Your task to perform on an android device: Search for the Nintendo Switch. Image 0: 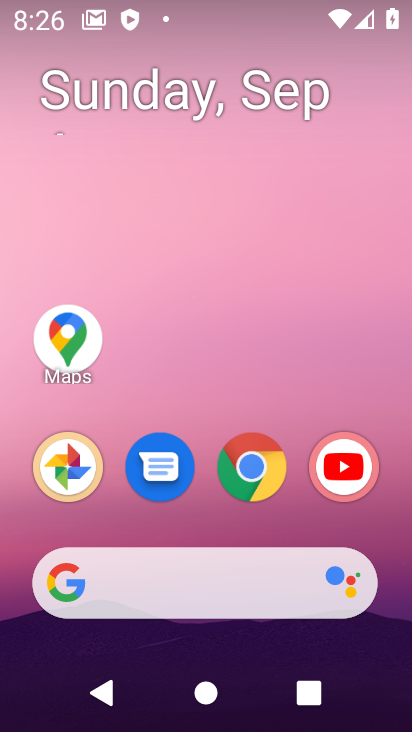
Step 0: click (262, 458)
Your task to perform on an android device: Search for the Nintendo Switch. Image 1: 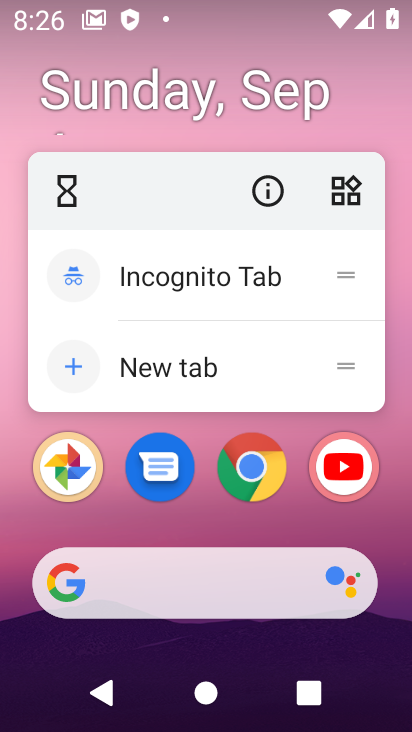
Step 1: click (274, 468)
Your task to perform on an android device: Search for the Nintendo Switch. Image 2: 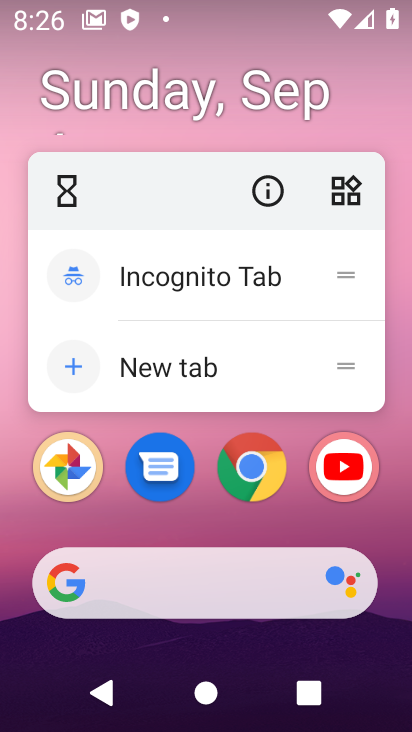
Step 2: click (256, 489)
Your task to perform on an android device: Search for the Nintendo Switch. Image 3: 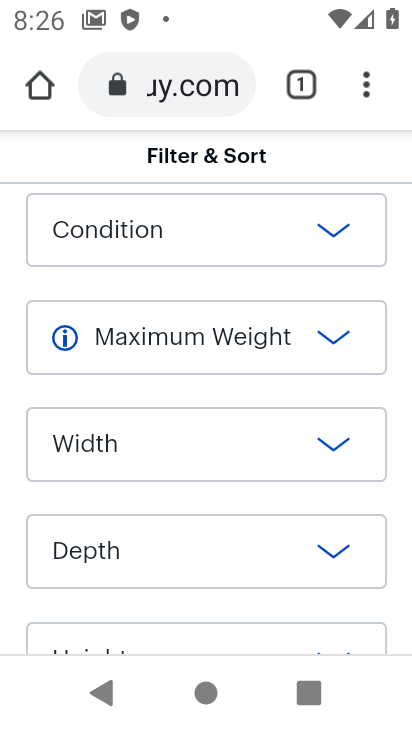
Step 3: click (214, 91)
Your task to perform on an android device: Search for the Nintendo Switch. Image 4: 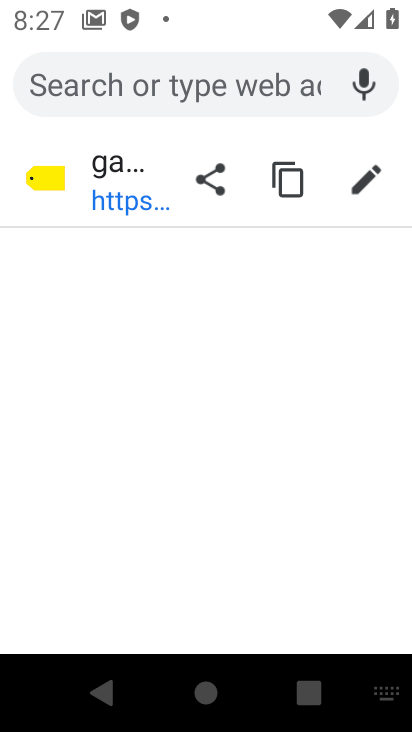
Step 4: type "nintendo switch"
Your task to perform on an android device: Search for the Nintendo Switch. Image 5: 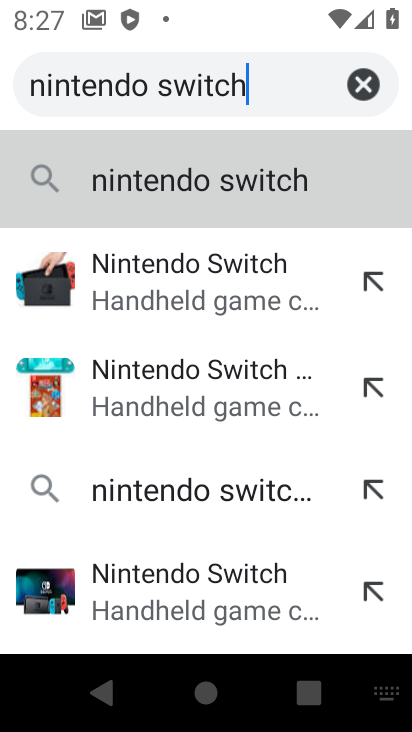
Step 5: type ""
Your task to perform on an android device: Search for the Nintendo Switch. Image 6: 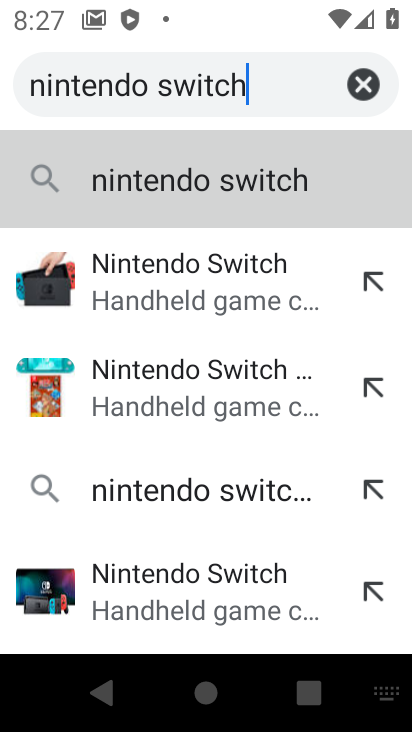
Step 6: click (140, 285)
Your task to perform on an android device: Search for the Nintendo Switch. Image 7: 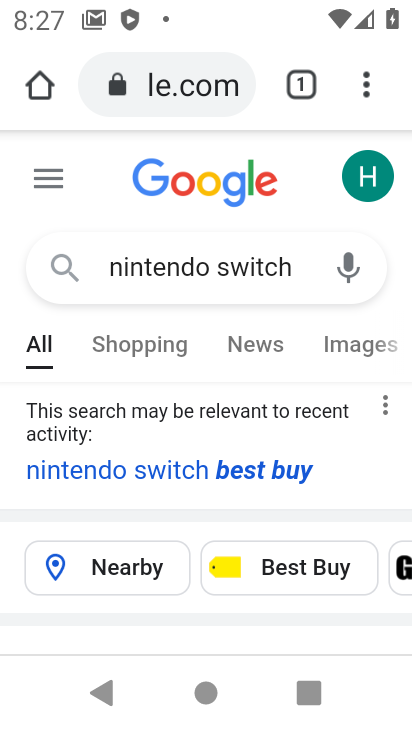
Step 7: drag from (404, 481) to (378, 266)
Your task to perform on an android device: Search for the Nintendo Switch. Image 8: 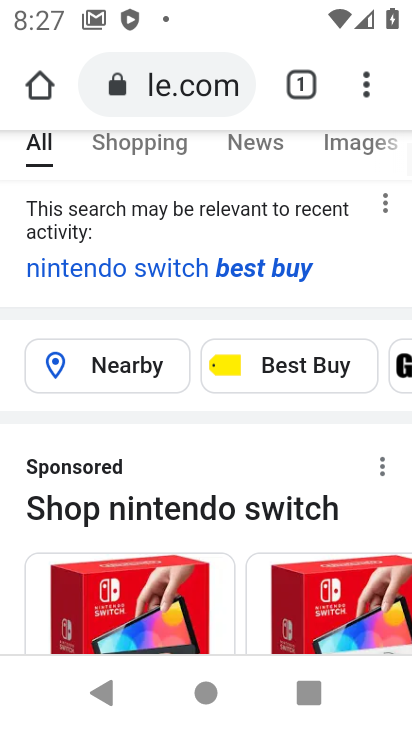
Step 8: drag from (389, 503) to (406, 100)
Your task to perform on an android device: Search for the Nintendo Switch. Image 9: 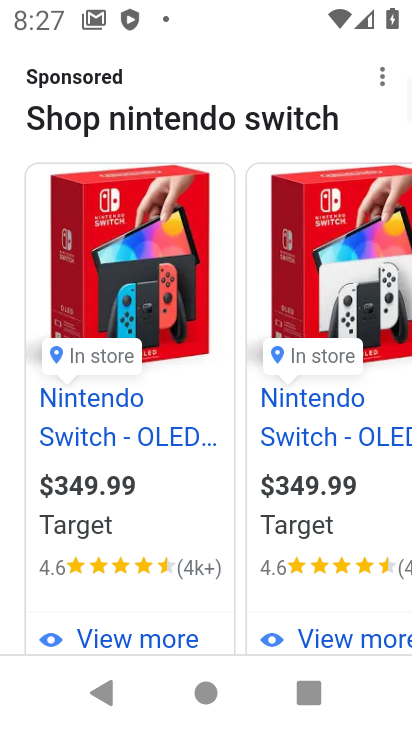
Step 9: drag from (387, 594) to (395, 136)
Your task to perform on an android device: Search for the Nintendo Switch. Image 10: 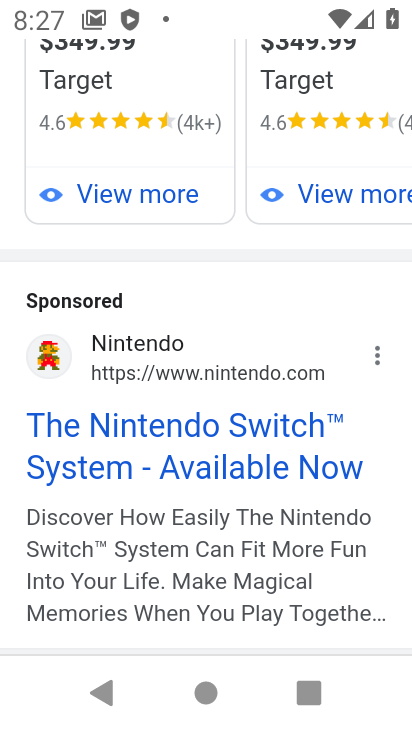
Step 10: drag from (393, 513) to (402, 263)
Your task to perform on an android device: Search for the Nintendo Switch. Image 11: 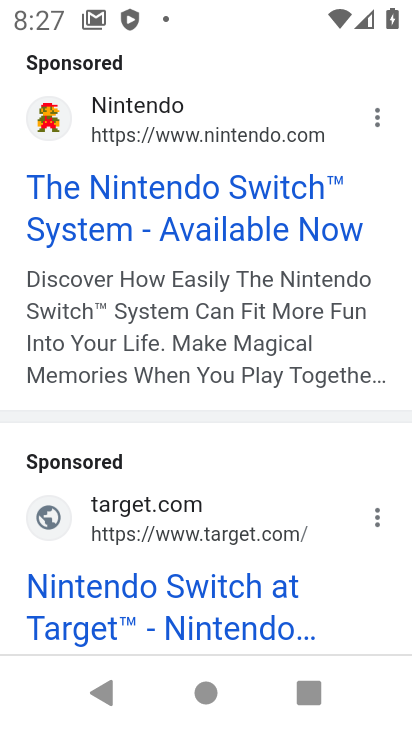
Step 11: click (134, 184)
Your task to perform on an android device: Search for the Nintendo Switch. Image 12: 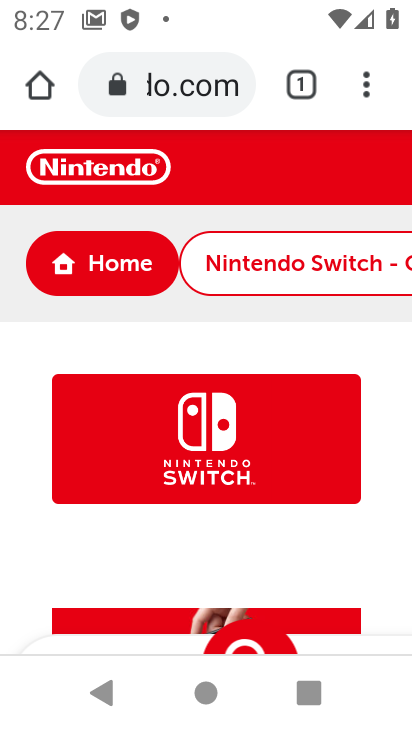
Step 12: drag from (401, 546) to (401, 323)
Your task to perform on an android device: Search for the Nintendo Switch. Image 13: 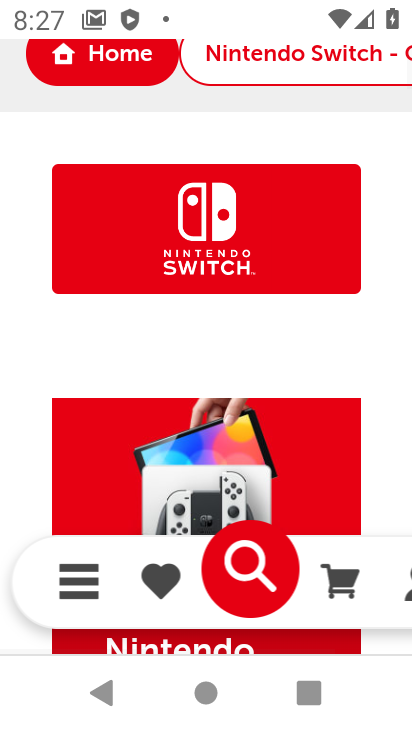
Step 13: drag from (358, 488) to (368, 176)
Your task to perform on an android device: Search for the Nintendo Switch. Image 14: 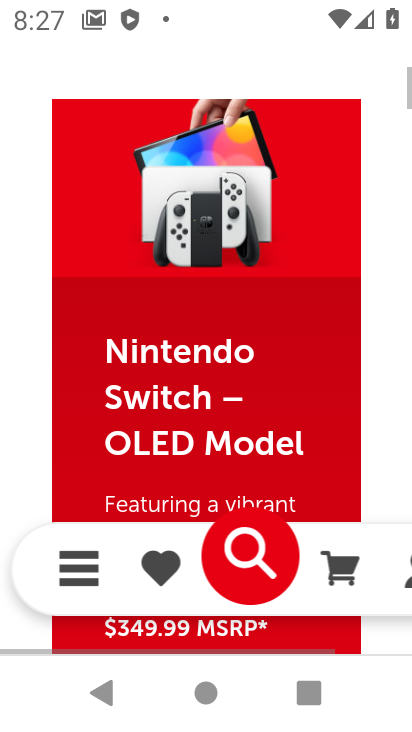
Step 14: drag from (369, 258) to (370, 83)
Your task to perform on an android device: Search for the Nintendo Switch. Image 15: 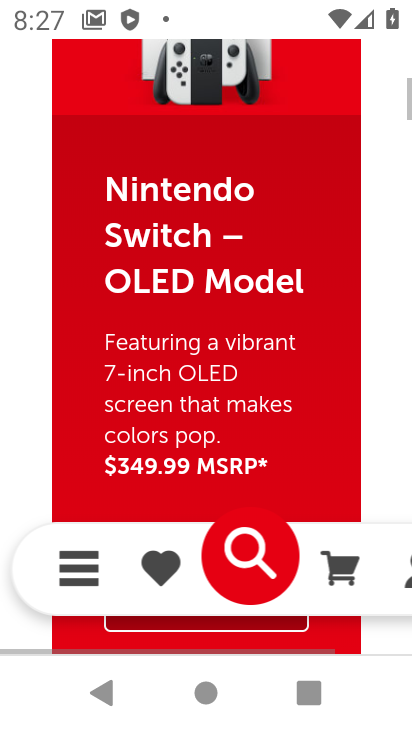
Step 15: drag from (383, 369) to (390, 0)
Your task to perform on an android device: Search for the Nintendo Switch. Image 16: 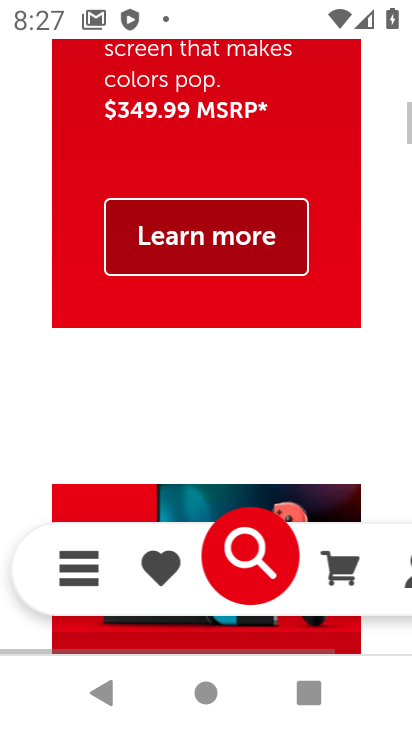
Step 16: drag from (393, 440) to (411, 193)
Your task to perform on an android device: Search for the Nintendo Switch. Image 17: 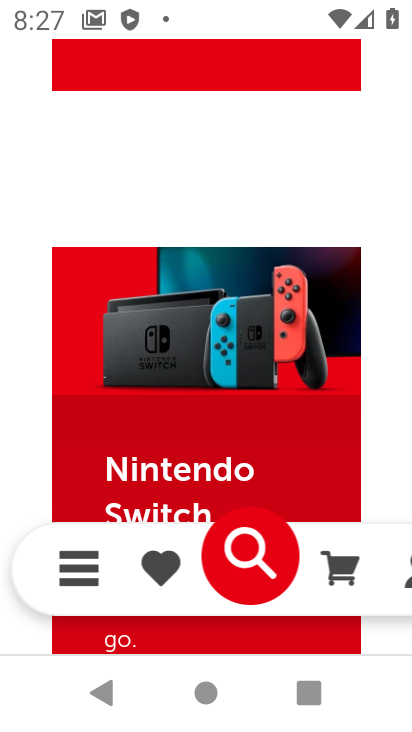
Step 17: drag from (390, 407) to (390, 165)
Your task to perform on an android device: Search for the Nintendo Switch. Image 18: 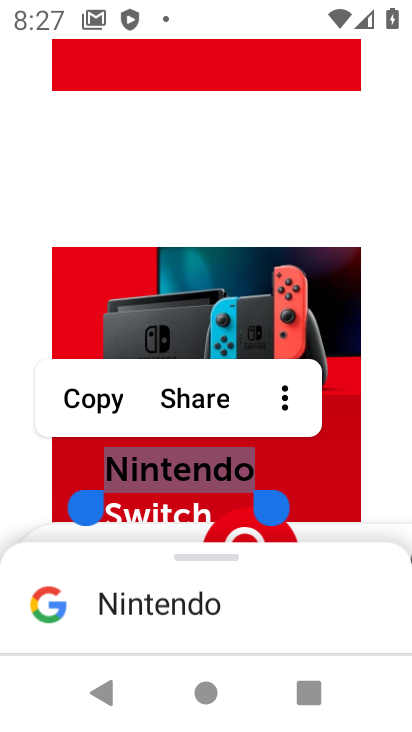
Step 18: drag from (368, 441) to (372, 190)
Your task to perform on an android device: Search for the Nintendo Switch. Image 19: 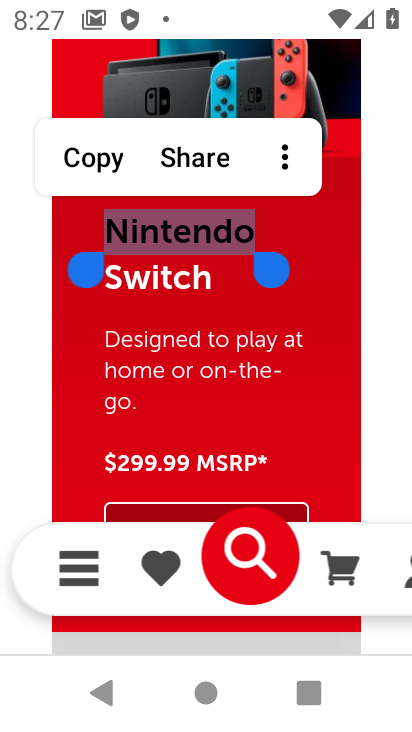
Step 19: drag from (383, 427) to (410, 156)
Your task to perform on an android device: Search for the Nintendo Switch. Image 20: 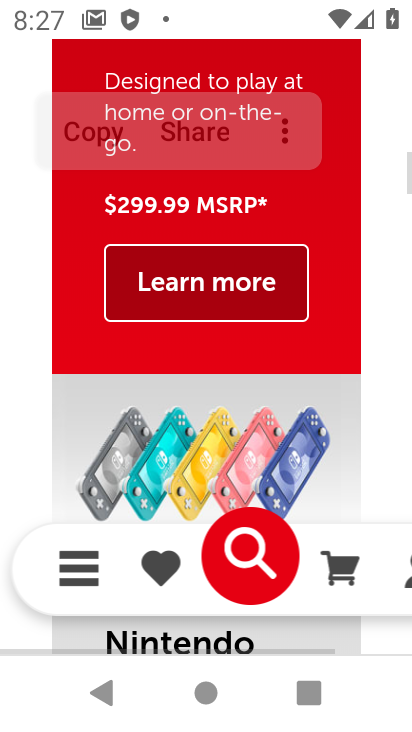
Step 20: drag from (365, 429) to (388, 148)
Your task to perform on an android device: Search for the Nintendo Switch. Image 21: 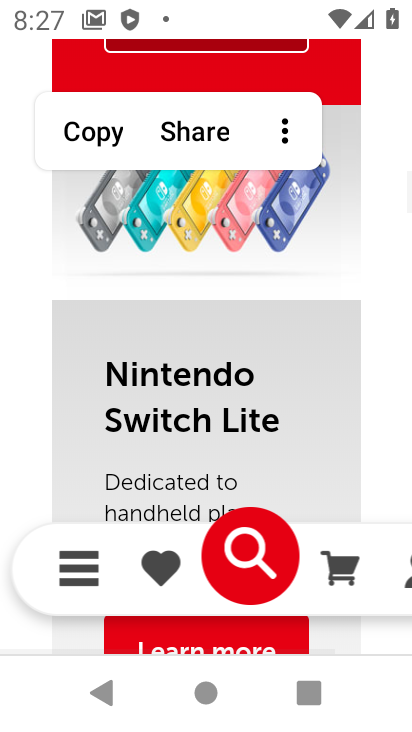
Step 21: drag from (385, 252) to (387, 163)
Your task to perform on an android device: Search for the Nintendo Switch. Image 22: 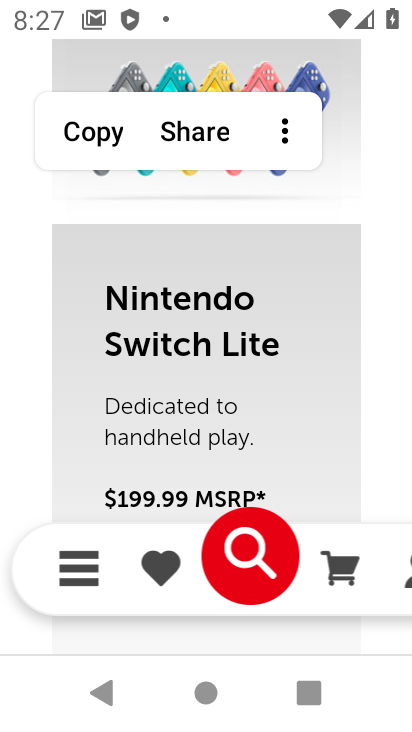
Step 22: drag from (394, 418) to (403, 163)
Your task to perform on an android device: Search for the Nintendo Switch. Image 23: 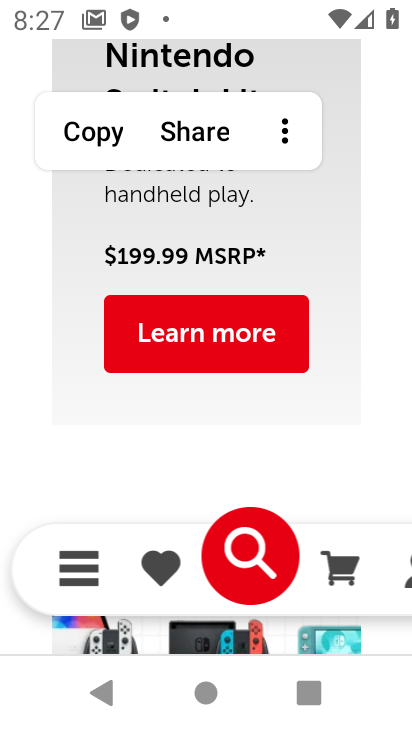
Step 23: drag from (389, 125) to (389, 28)
Your task to perform on an android device: Search for the Nintendo Switch. Image 24: 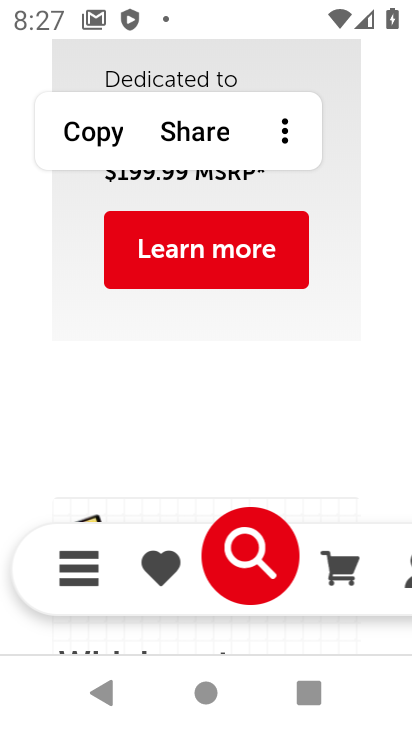
Step 24: drag from (409, 360) to (409, 41)
Your task to perform on an android device: Search for the Nintendo Switch. Image 25: 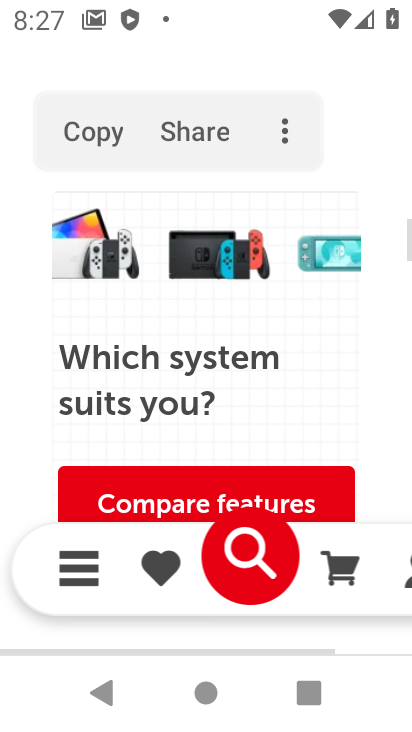
Step 25: drag from (411, 368) to (402, 218)
Your task to perform on an android device: Search for the Nintendo Switch. Image 26: 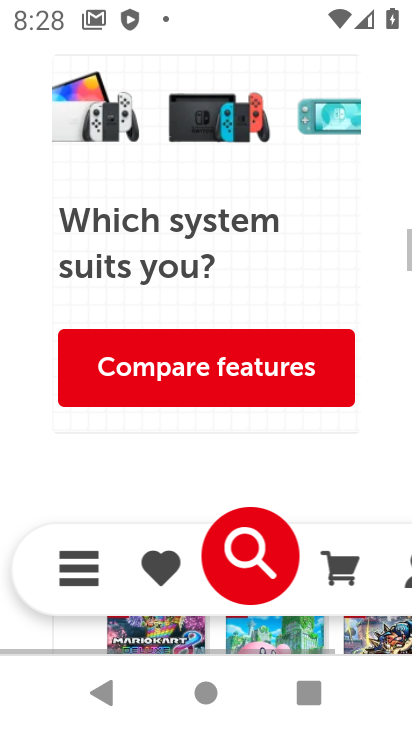
Step 26: drag from (391, 250) to (391, 104)
Your task to perform on an android device: Search for the Nintendo Switch. Image 27: 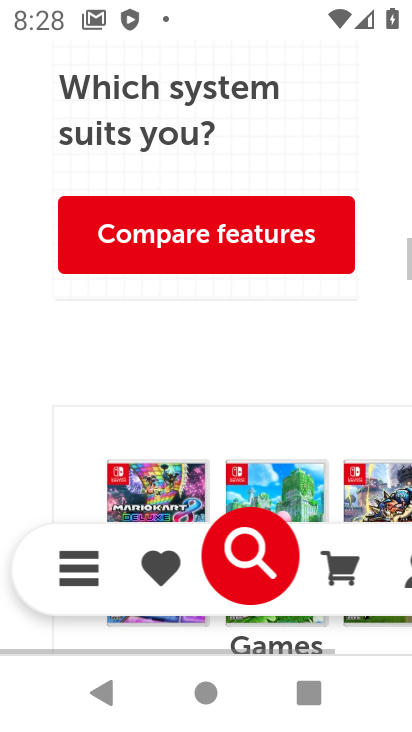
Step 27: drag from (380, 250) to (380, 44)
Your task to perform on an android device: Search for the Nintendo Switch. Image 28: 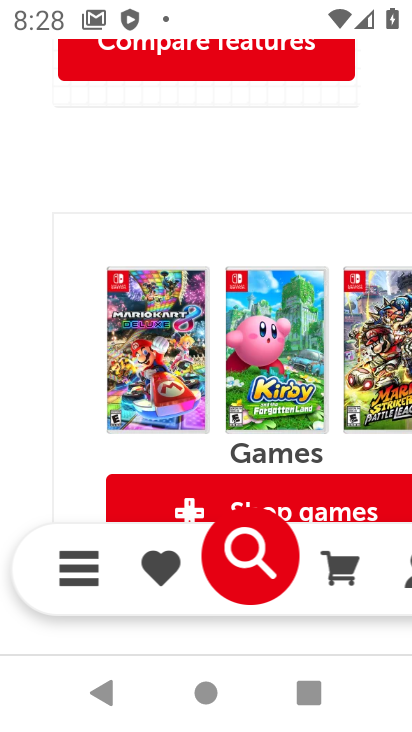
Step 28: drag from (378, 202) to (378, 34)
Your task to perform on an android device: Search for the Nintendo Switch. Image 29: 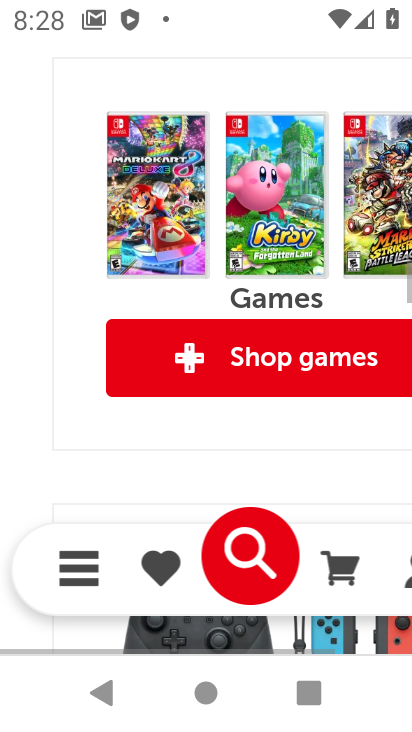
Step 29: drag from (397, 297) to (386, 80)
Your task to perform on an android device: Search for the Nintendo Switch. Image 30: 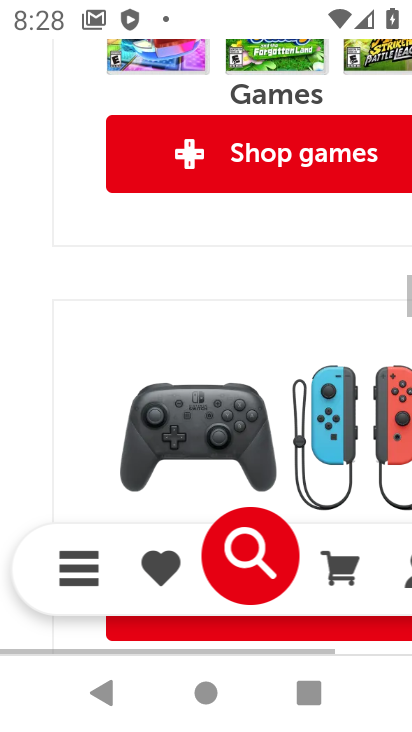
Step 30: drag from (367, 300) to (366, 15)
Your task to perform on an android device: Search for the Nintendo Switch. Image 31: 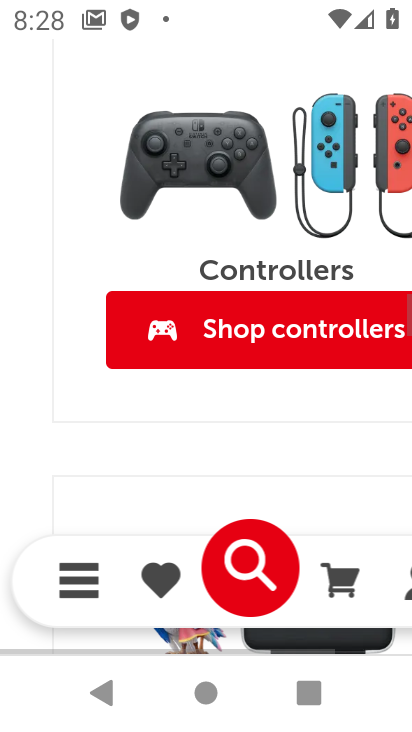
Step 31: drag from (387, 435) to (346, 22)
Your task to perform on an android device: Search for the Nintendo Switch. Image 32: 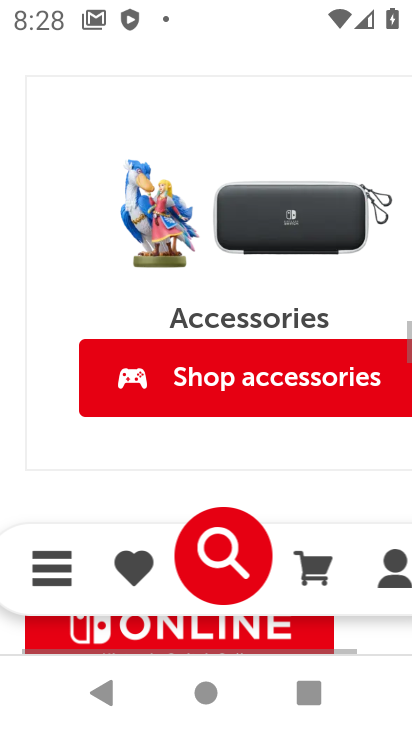
Step 32: drag from (374, 231) to (403, 378)
Your task to perform on an android device: Search for the Nintendo Switch. Image 33: 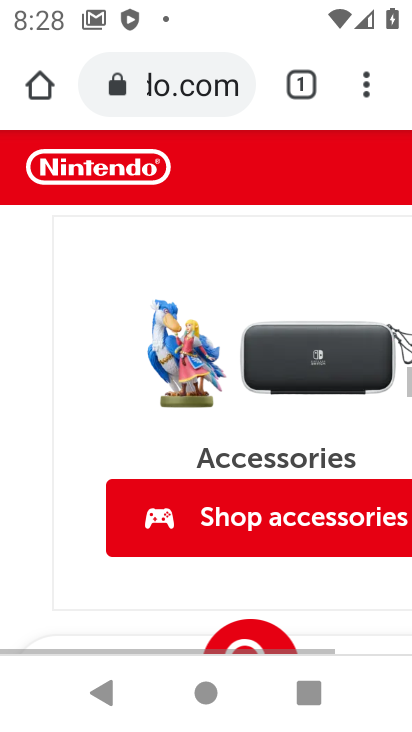
Step 33: drag from (382, 212) to (397, 63)
Your task to perform on an android device: Search for the Nintendo Switch. Image 34: 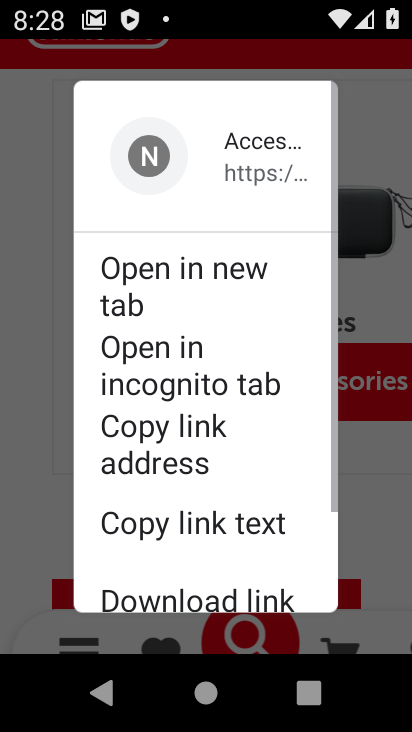
Step 34: drag from (374, 512) to (380, 84)
Your task to perform on an android device: Search for the Nintendo Switch. Image 35: 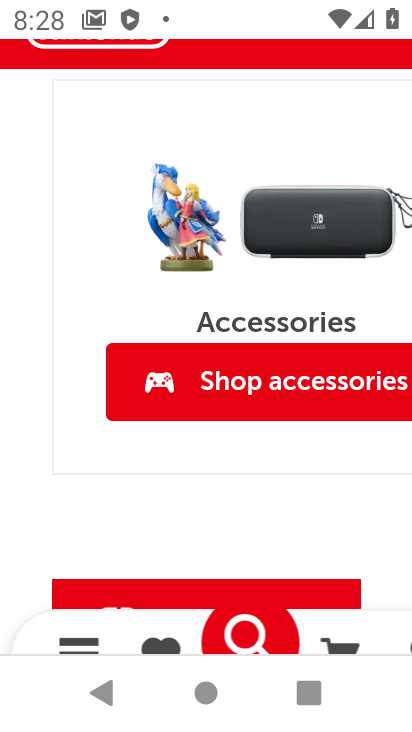
Step 35: drag from (365, 284) to (364, 145)
Your task to perform on an android device: Search for the Nintendo Switch. Image 36: 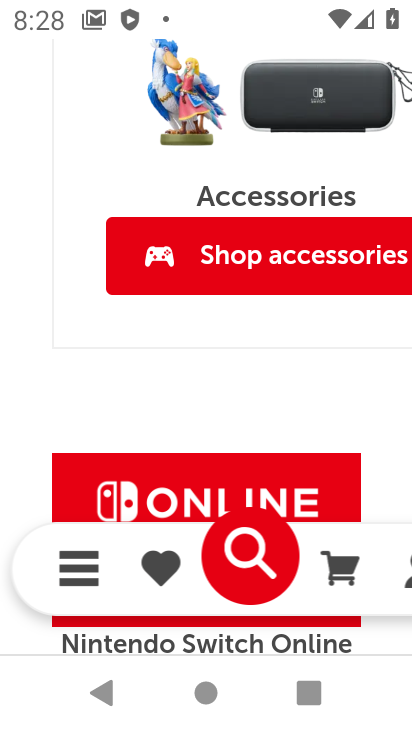
Step 36: drag from (366, 510) to (385, 197)
Your task to perform on an android device: Search for the Nintendo Switch. Image 37: 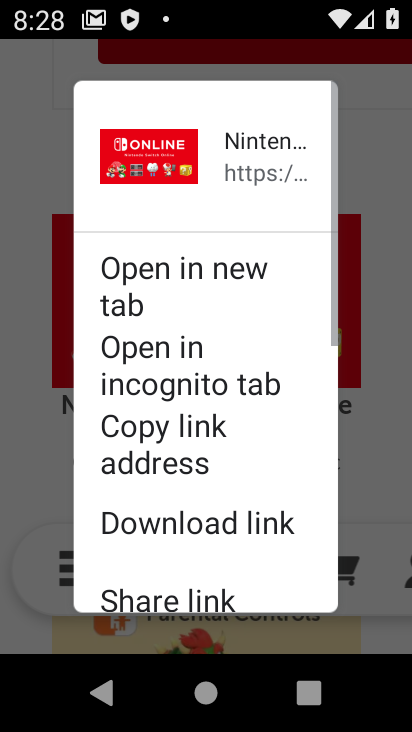
Step 37: click (411, 494)
Your task to perform on an android device: Search for the Nintendo Switch. Image 38: 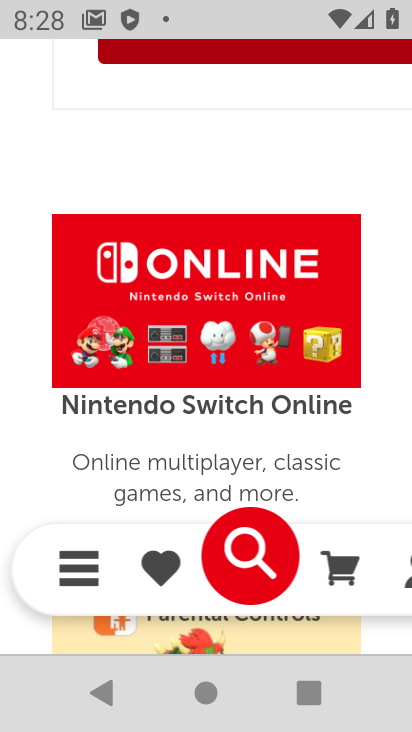
Step 38: task complete